Your task to perform on an android device: refresh tabs in the chrome app Image 0: 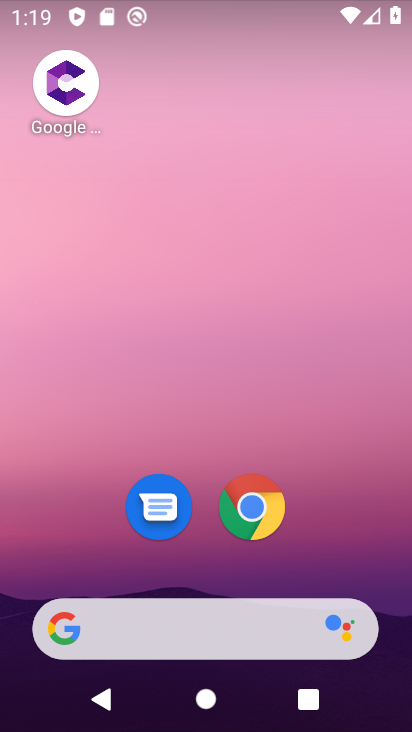
Step 0: click (250, 502)
Your task to perform on an android device: refresh tabs in the chrome app Image 1: 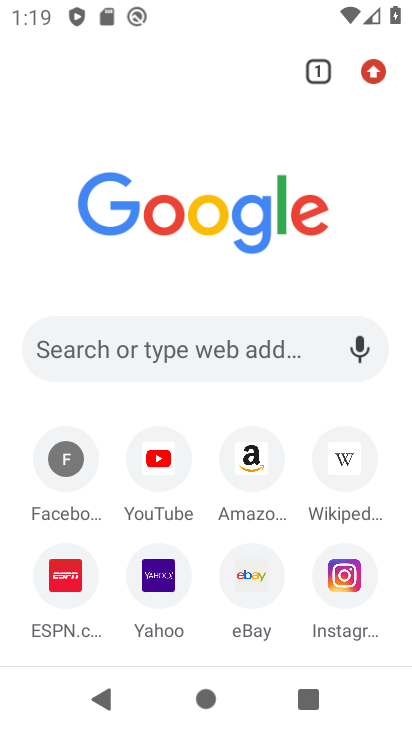
Step 1: click (372, 76)
Your task to perform on an android device: refresh tabs in the chrome app Image 2: 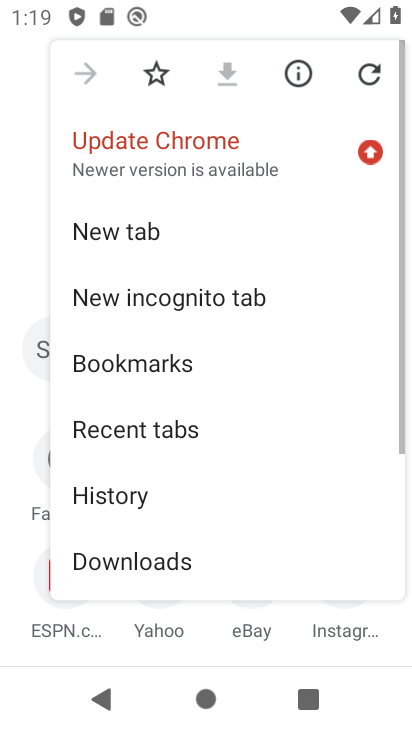
Step 2: click (372, 76)
Your task to perform on an android device: refresh tabs in the chrome app Image 3: 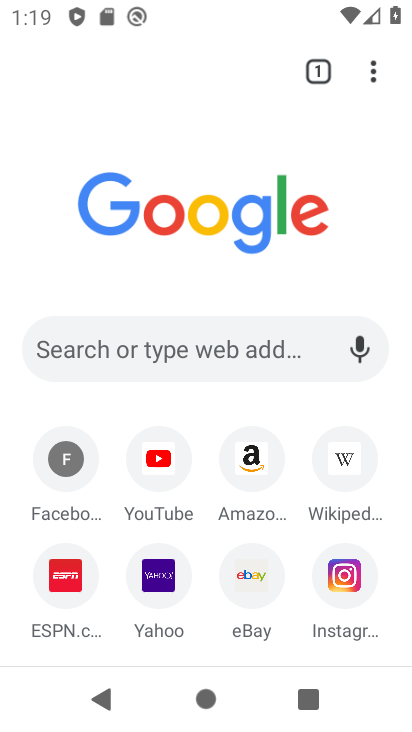
Step 3: task complete